Your task to perform on an android device: When is my next appointment? Image 0: 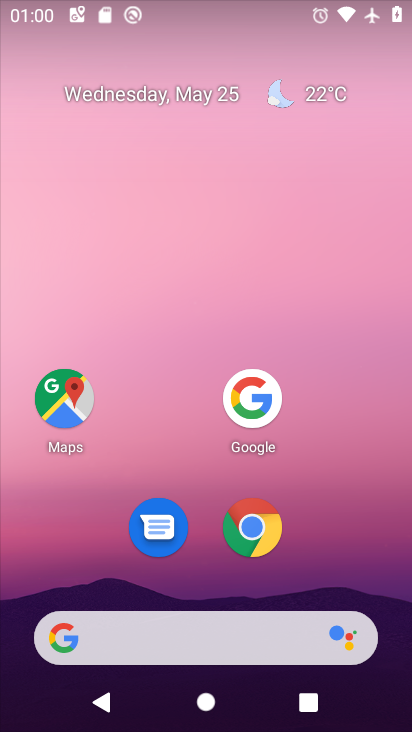
Step 0: press home button
Your task to perform on an android device: When is my next appointment? Image 1: 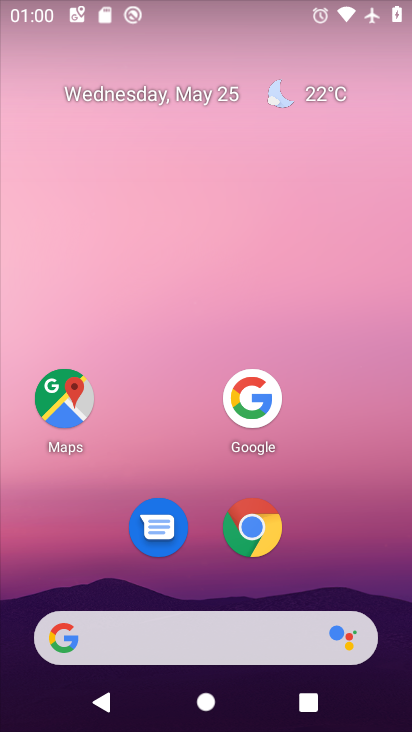
Step 1: drag from (156, 620) to (275, 63)
Your task to perform on an android device: When is my next appointment? Image 2: 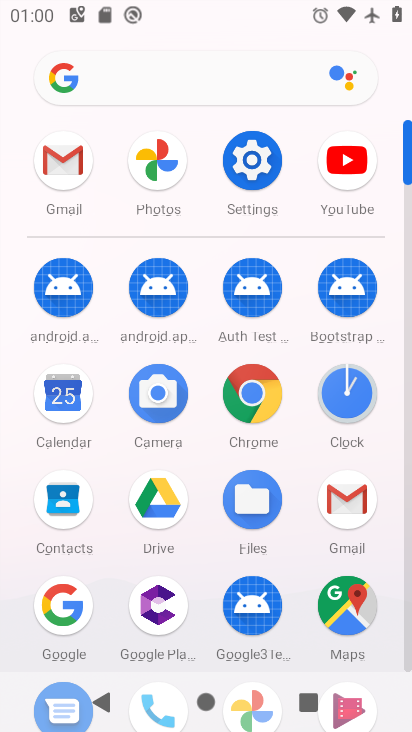
Step 2: click (50, 408)
Your task to perform on an android device: When is my next appointment? Image 3: 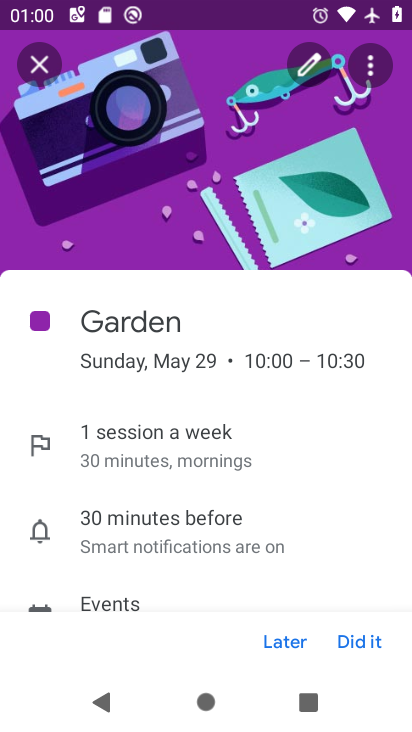
Step 3: click (34, 71)
Your task to perform on an android device: When is my next appointment? Image 4: 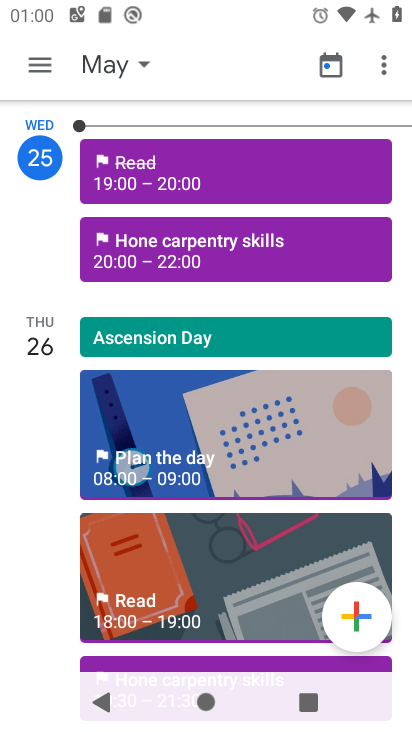
Step 4: click (103, 70)
Your task to perform on an android device: When is my next appointment? Image 5: 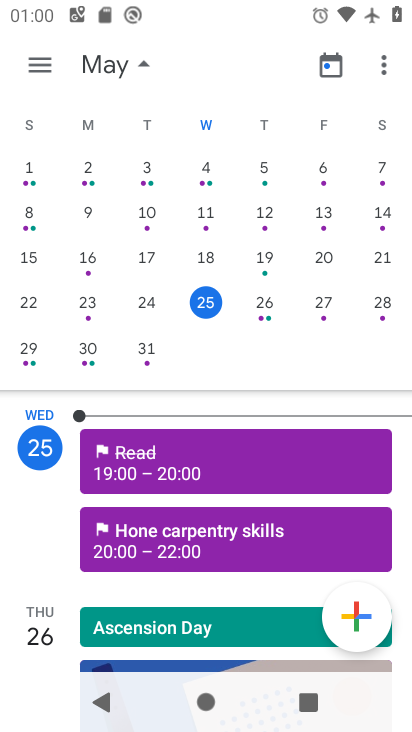
Step 5: click (212, 306)
Your task to perform on an android device: When is my next appointment? Image 6: 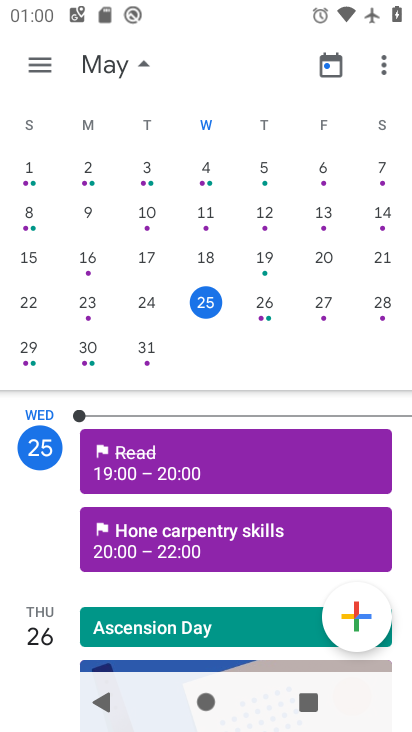
Step 6: click (43, 71)
Your task to perform on an android device: When is my next appointment? Image 7: 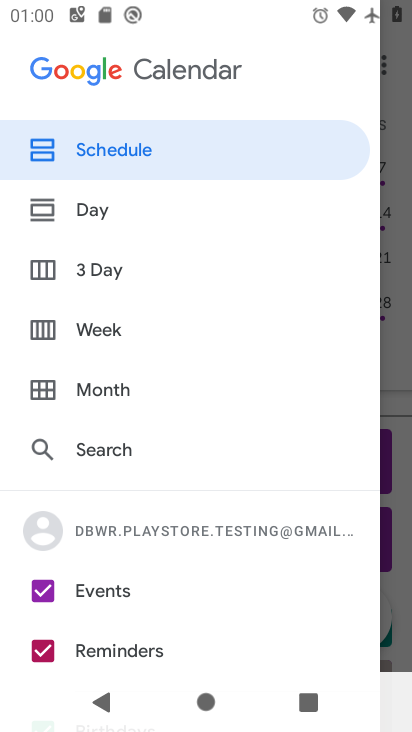
Step 7: click (127, 158)
Your task to perform on an android device: When is my next appointment? Image 8: 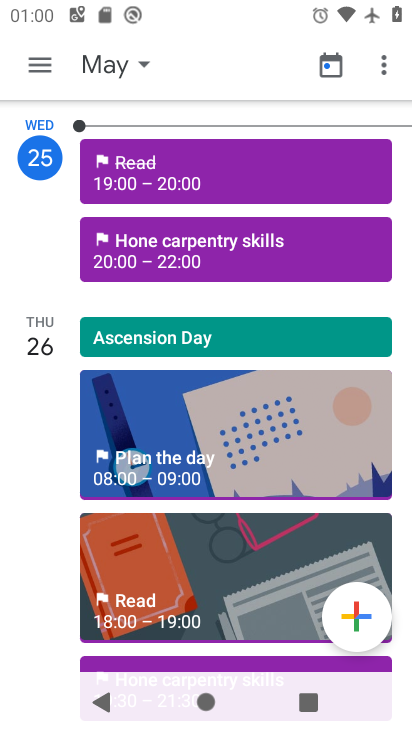
Step 8: click (202, 565)
Your task to perform on an android device: When is my next appointment? Image 9: 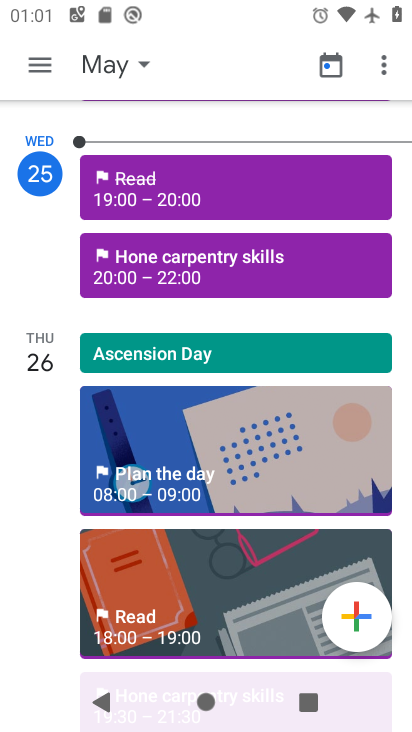
Step 9: click (155, 262)
Your task to perform on an android device: When is my next appointment? Image 10: 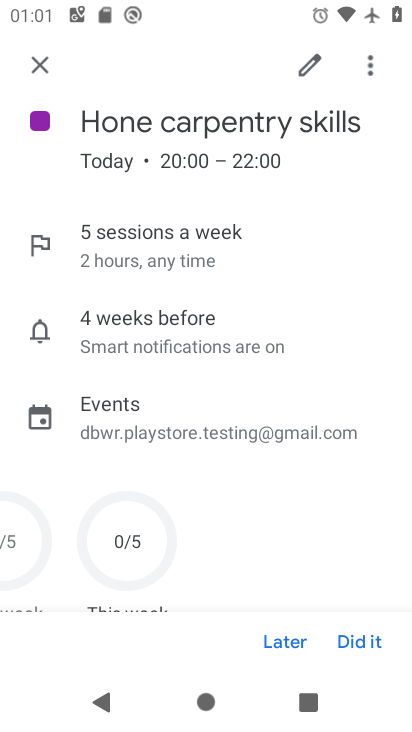
Step 10: task complete